Your task to perform on an android device: Search for Italian restaurants on Maps Image 0: 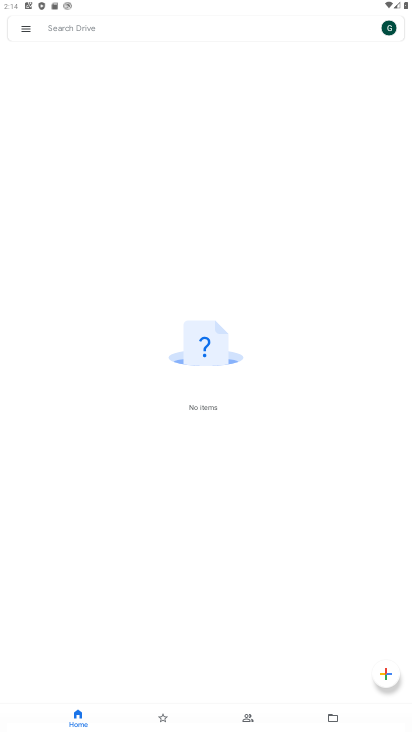
Step 0: press home button
Your task to perform on an android device: Search for Italian restaurants on Maps Image 1: 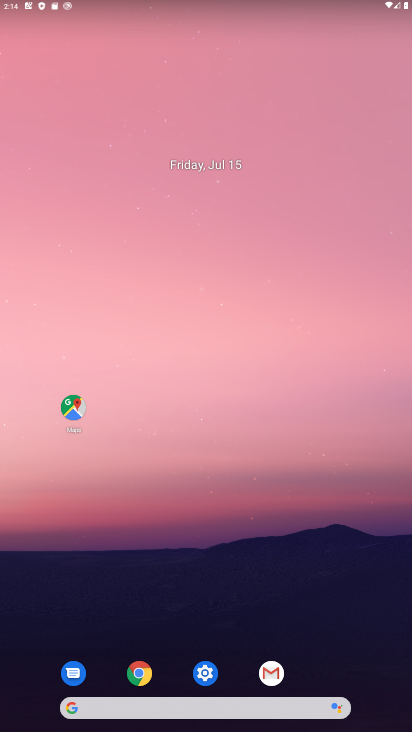
Step 1: click (69, 403)
Your task to perform on an android device: Search for Italian restaurants on Maps Image 2: 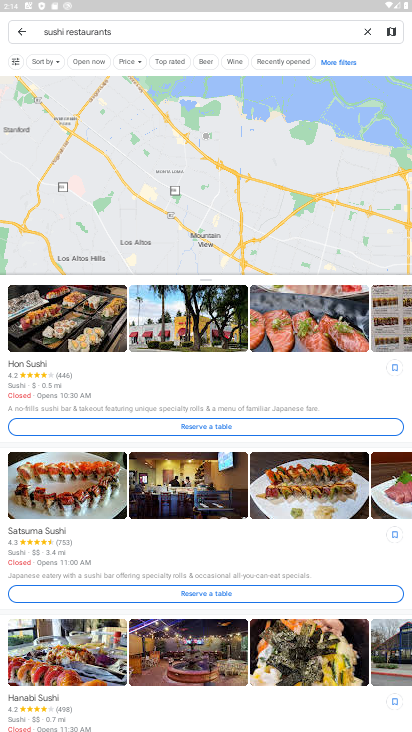
Step 2: click (365, 33)
Your task to perform on an android device: Search for Italian restaurants on Maps Image 3: 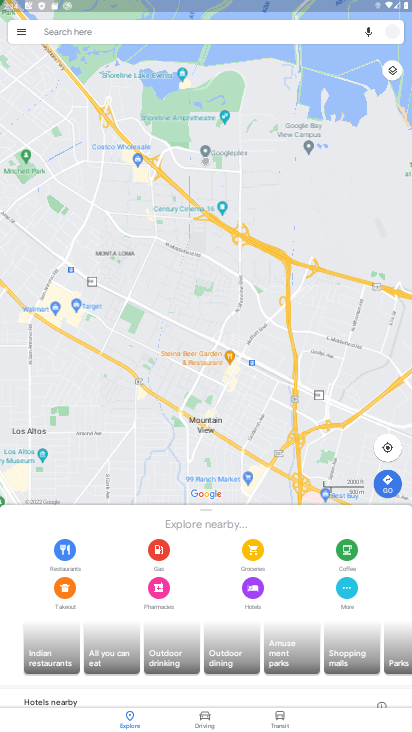
Step 3: click (221, 39)
Your task to perform on an android device: Search for Italian restaurants on Maps Image 4: 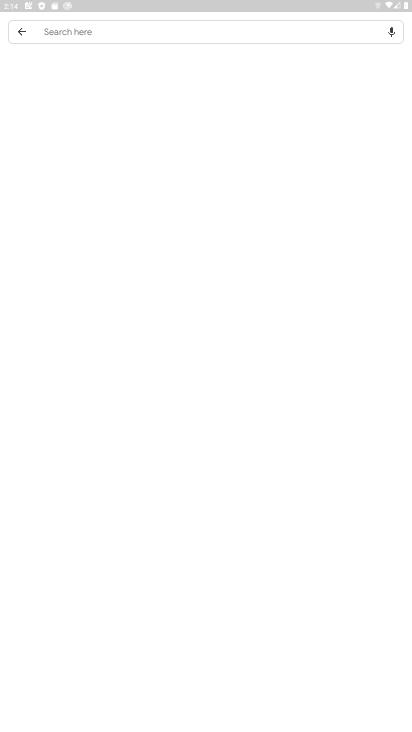
Step 4: click (221, 39)
Your task to perform on an android device: Search for Italian restaurants on Maps Image 5: 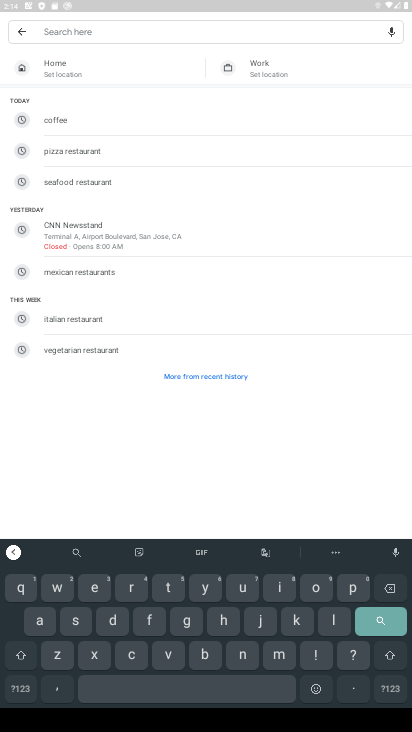
Step 5: click (282, 588)
Your task to perform on an android device: Search for Italian restaurants on Maps Image 6: 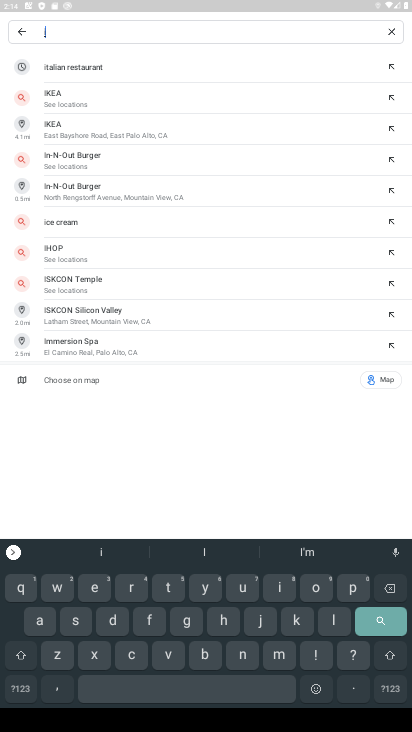
Step 6: click (170, 592)
Your task to perform on an android device: Search for Italian restaurants on Maps Image 7: 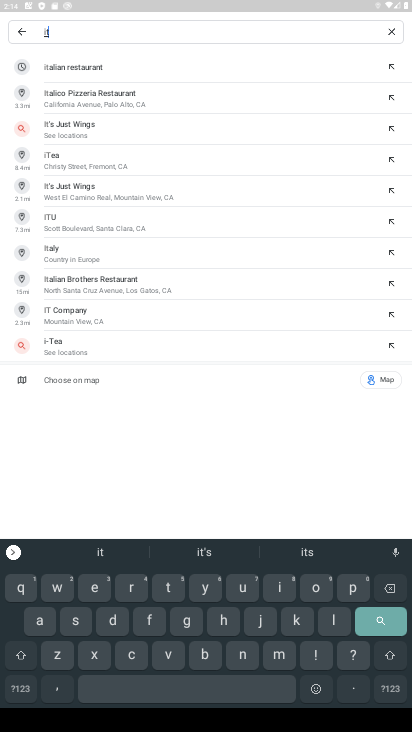
Step 7: click (42, 621)
Your task to perform on an android device: Search for Italian restaurants on Maps Image 8: 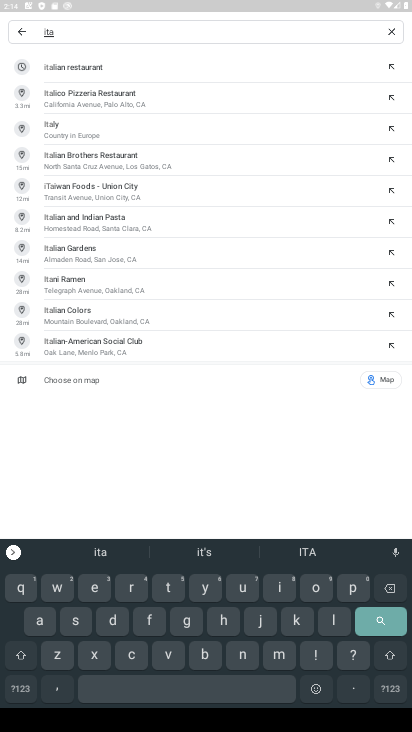
Step 8: click (89, 71)
Your task to perform on an android device: Search for Italian restaurants on Maps Image 9: 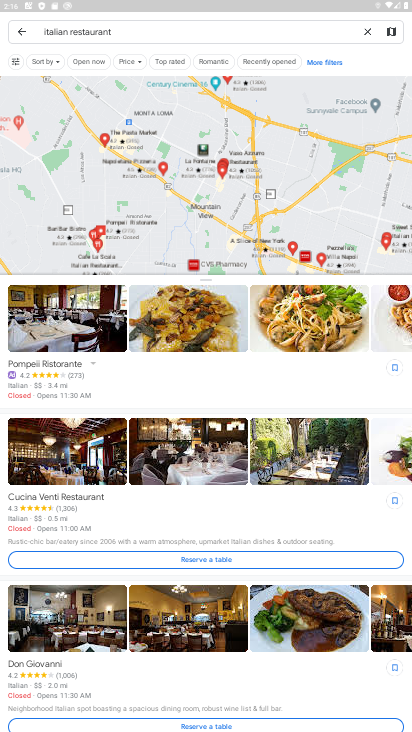
Step 9: task complete